Your task to perform on an android device: Open wifi settings Image 0: 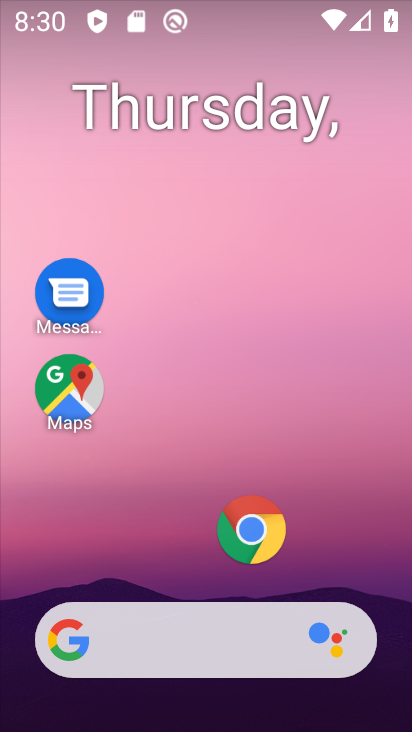
Step 0: drag from (263, 15) to (211, 545)
Your task to perform on an android device: Open wifi settings Image 1: 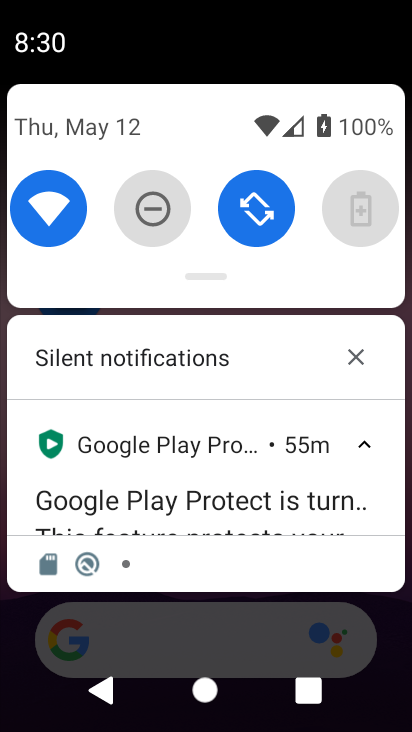
Step 1: click (61, 197)
Your task to perform on an android device: Open wifi settings Image 2: 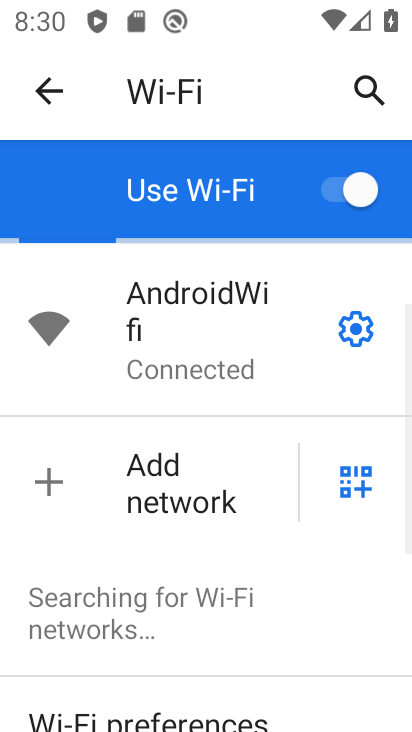
Step 2: task complete